Your task to perform on an android device: Open location settings Image 0: 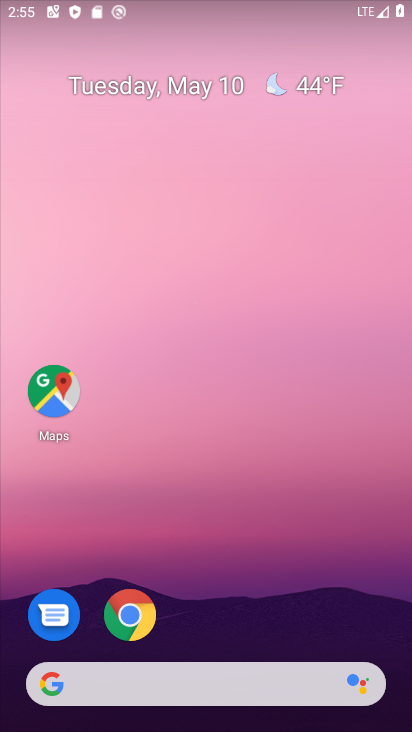
Step 0: drag from (223, 606) to (216, 74)
Your task to perform on an android device: Open location settings Image 1: 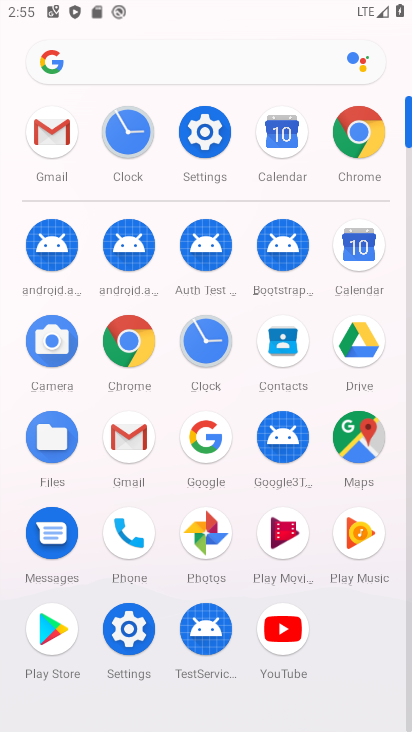
Step 1: click (205, 142)
Your task to perform on an android device: Open location settings Image 2: 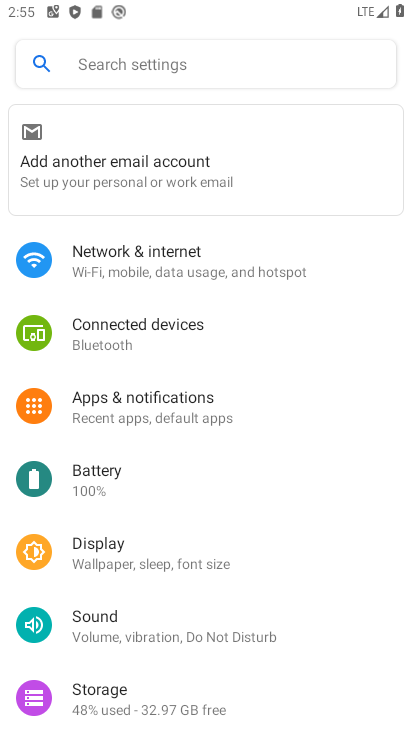
Step 2: drag from (201, 576) to (175, 147)
Your task to perform on an android device: Open location settings Image 3: 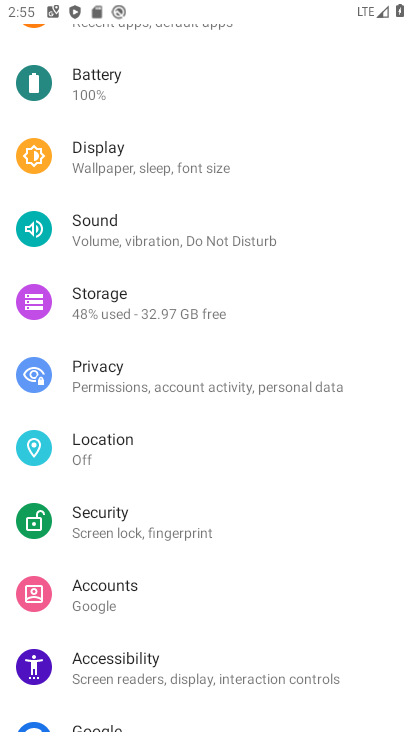
Step 3: click (126, 459)
Your task to perform on an android device: Open location settings Image 4: 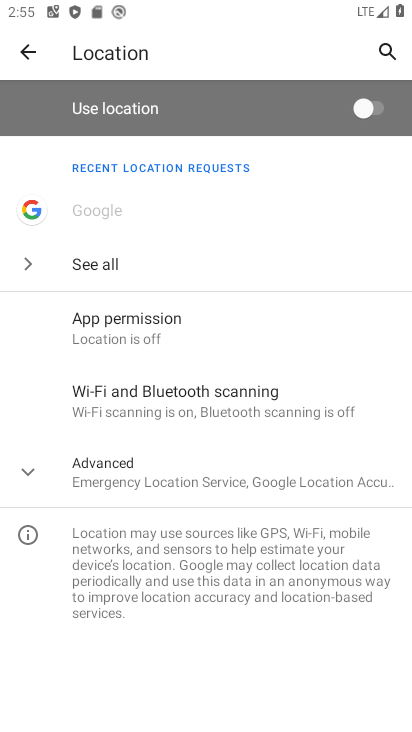
Step 4: task complete